Your task to perform on an android device: change notifications settings Image 0: 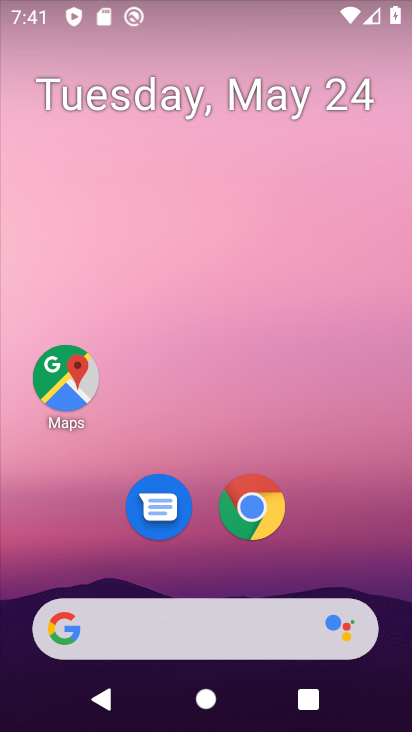
Step 0: press home button
Your task to perform on an android device: change notifications settings Image 1: 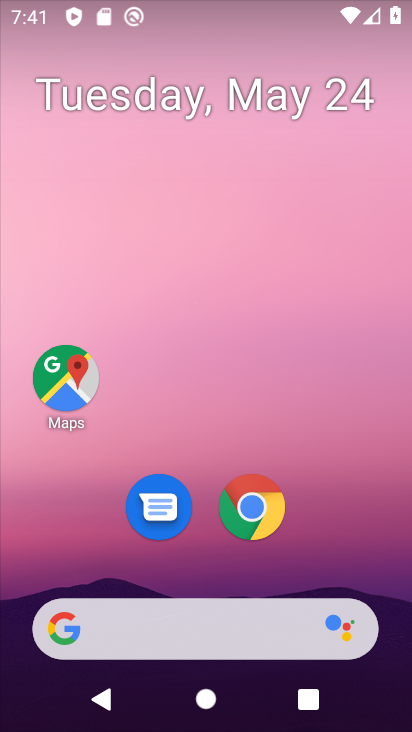
Step 1: drag from (177, 648) to (359, 46)
Your task to perform on an android device: change notifications settings Image 2: 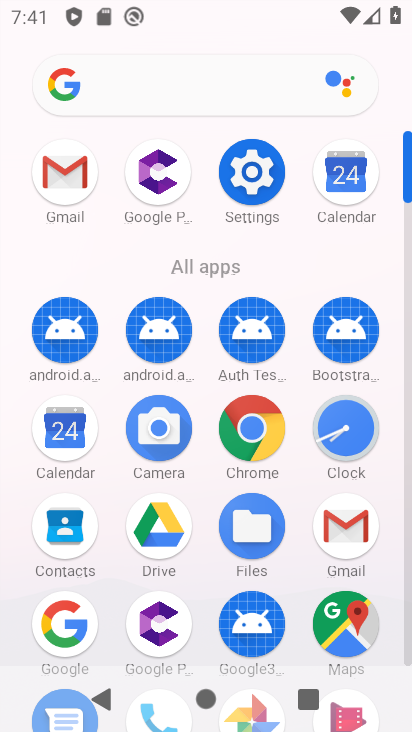
Step 2: click (249, 192)
Your task to perform on an android device: change notifications settings Image 3: 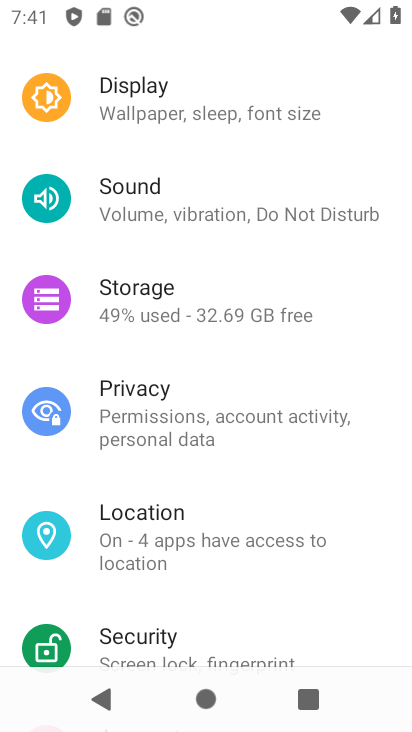
Step 3: drag from (225, 588) to (334, 175)
Your task to perform on an android device: change notifications settings Image 4: 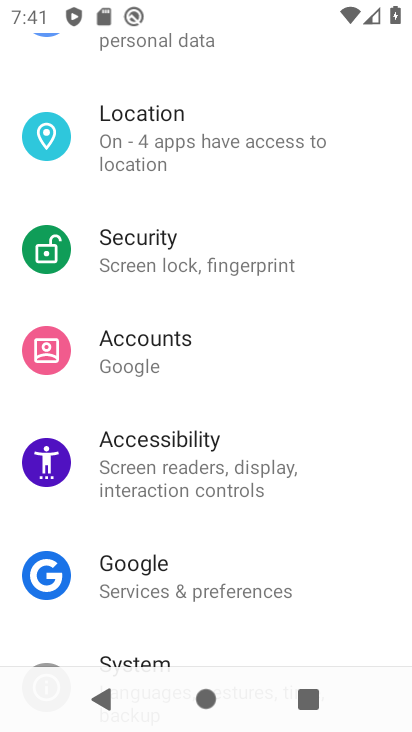
Step 4: drag from (294, 168) to (219, 622)
Your task to perform on an android device: change notifications settings Image 5: 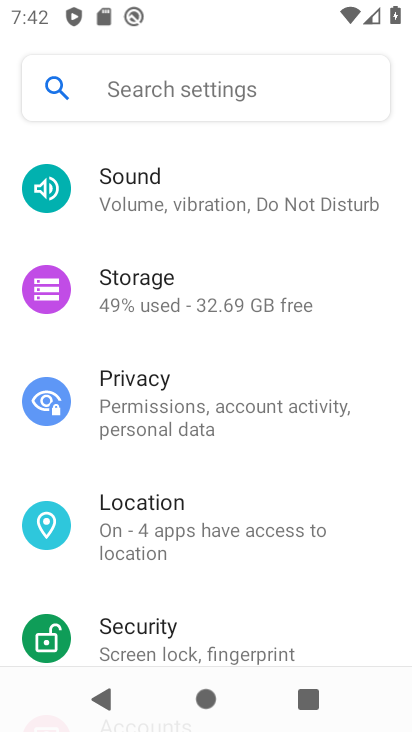
Step 5: drag from (241, 245) to (161, 619)
Your task to perform on an android device: change notifications settings Image 6: 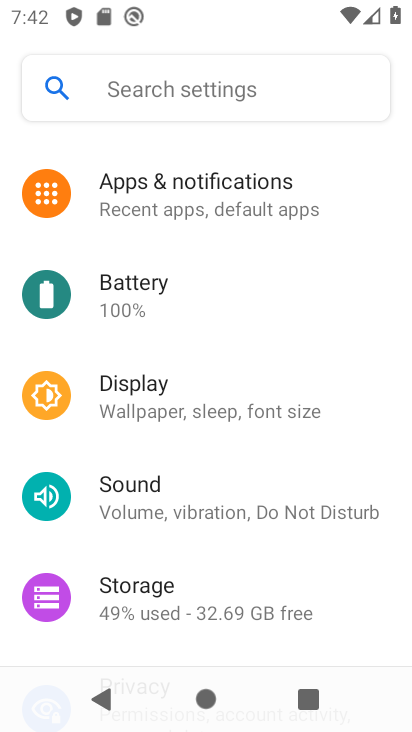
Step 6: click (226, 193)
Your task to perform on an android device: change notifications settings Image 7: 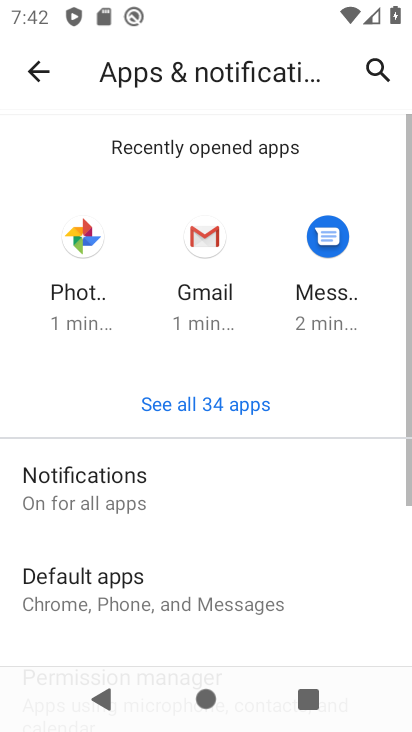
Step 7: click (111, 487)
Your task to perform on an android device: change notifications settings Image 8: 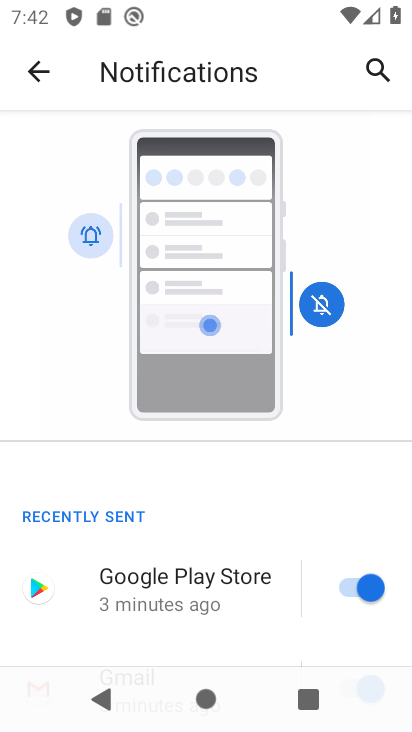
Step 8: drag from (211, 631) to (331, 339)
Your task to perform on an android device: change notifications settings Image 9: 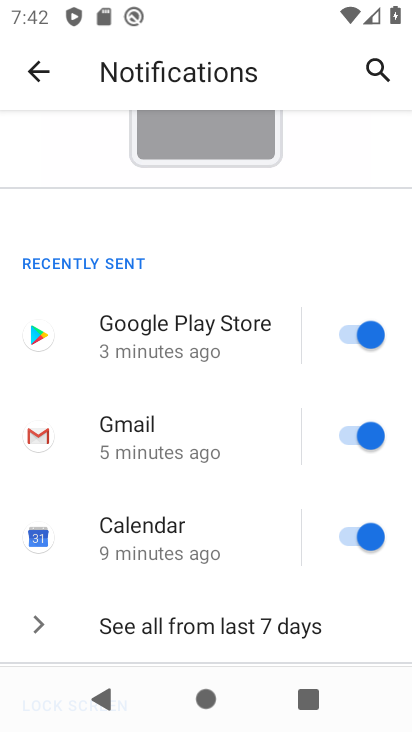
Step 9: click (351, 335)
Your task to perform on an android device: change notifications settings Image 10: 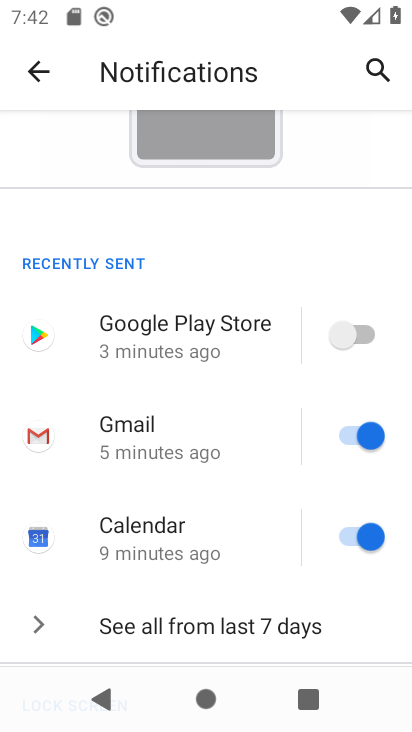
Step 10: task complete